Your task to perform on an android device: turn on bluetooth scan Image 0: 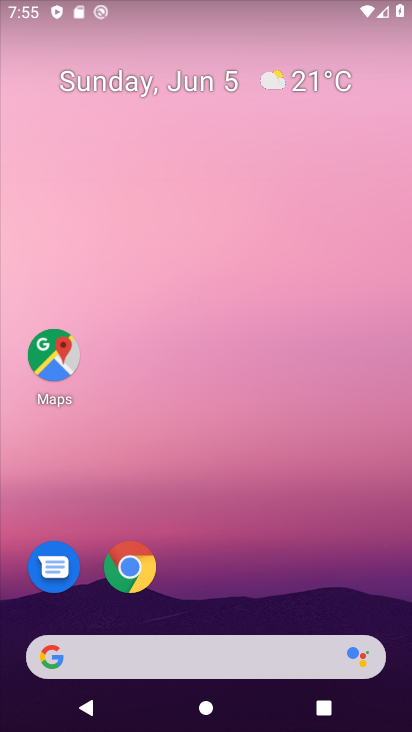
Step 0: drag from (252, 634) to (282, 0)
Your task to perform on an android device: turn on bluetooth scan Image 1: 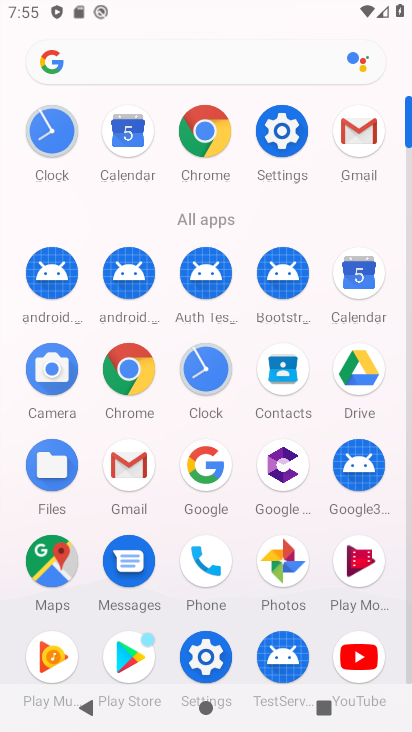
Step 1: click (274, 127)
Your task to perform on an android device: turn on bluetooth scan Image 2: 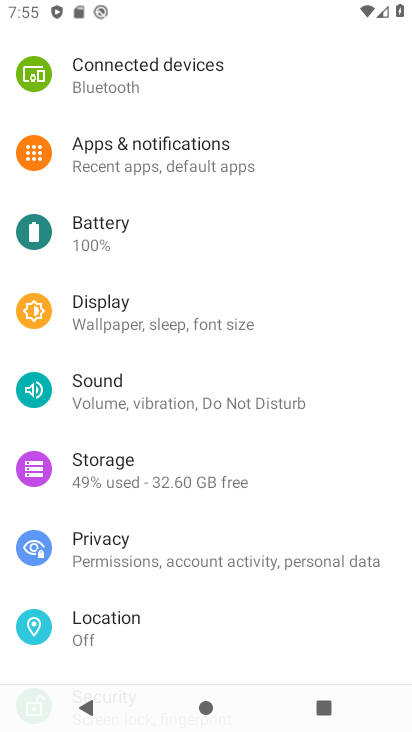
Step 2: click (108, 613)
Your task to perform on an android device: turn on bluetooth scan Image 3: 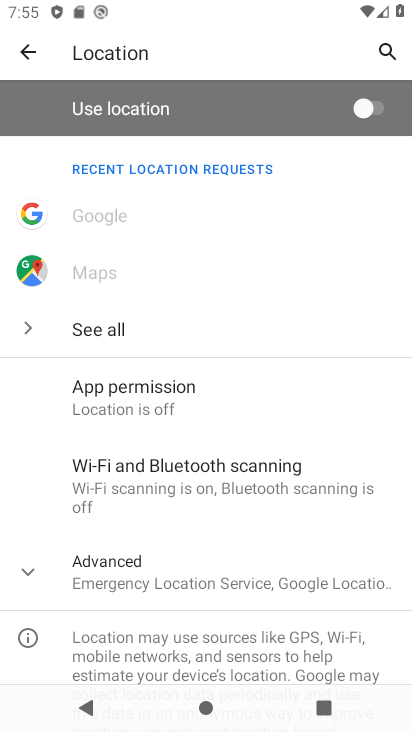
Step 3: click (147, 476)
Your task to perform on an android device: turn on bluetooth scan Image 4: 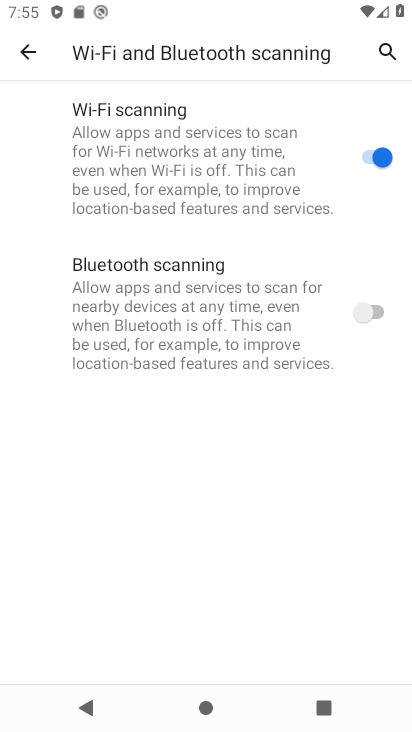
Step 4: click (373, 317)
Your task to perform on an android device: turn on bluetooth scan Image 5: 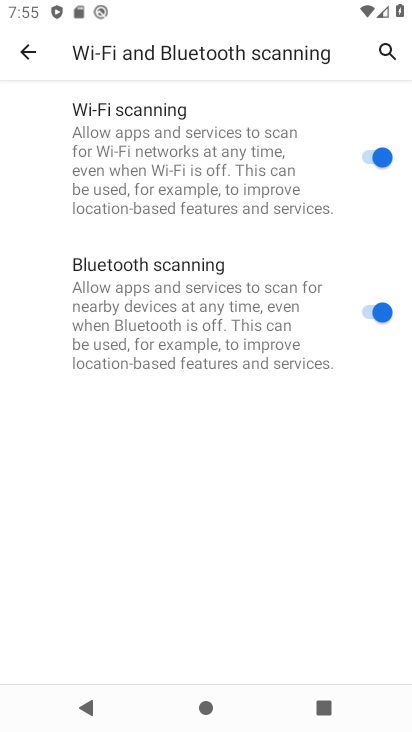
Step 5: task complete